Your task to perform on an android device: Open Yahoo.com Image 0: 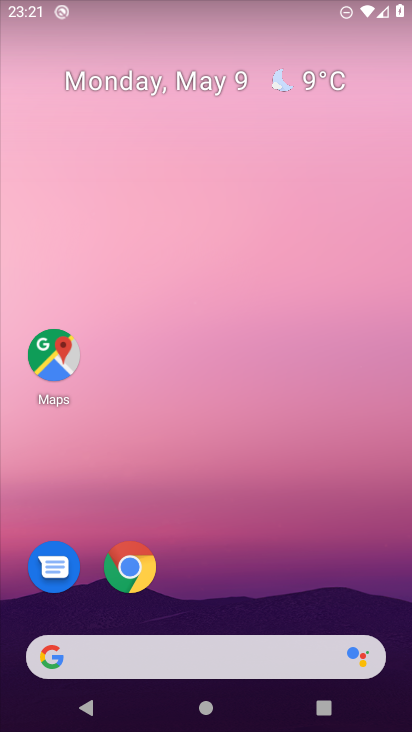
Step 0: drag from (224, 604) to (251, 115)
Your task to perform on an android device: Open Yahoo.com Image 1: 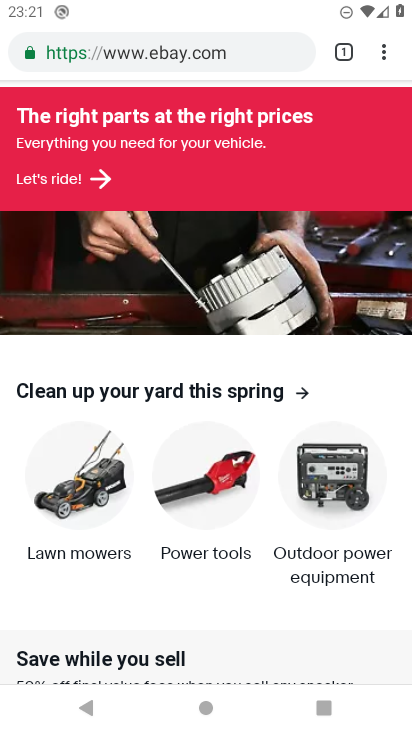
Step 1: press home button
Your task to perform on an android device: Open Yahoo.com Image 2: 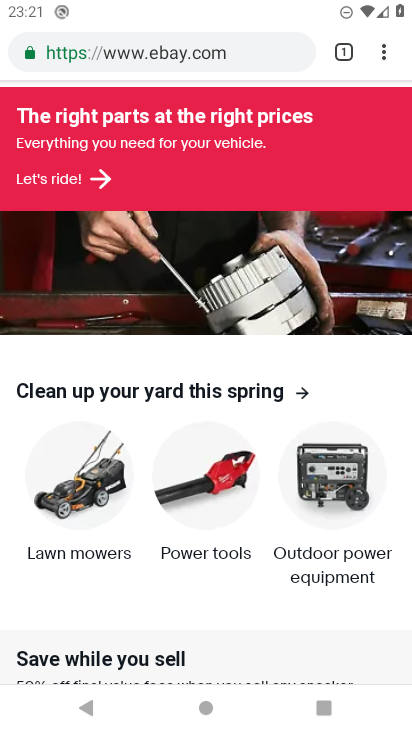
Step 2: press home button
Your task to perform on an android device: Open Yahoo.com Image 3: 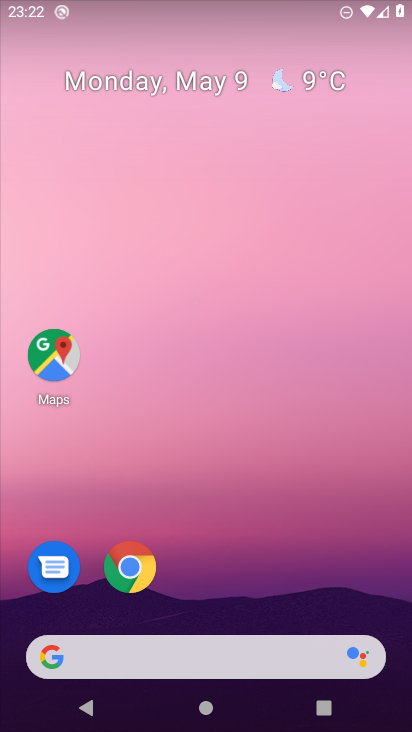
Step 3: click (130, 560)
Your task to perform on an android device: Open Yahoo.com Image 4: 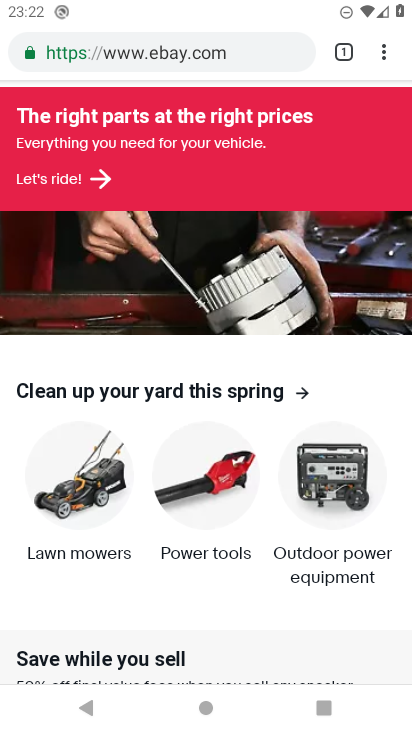
Step 4: click (346, 53)
Your task to perform on an android device: Open Yahoo.com Image 5: 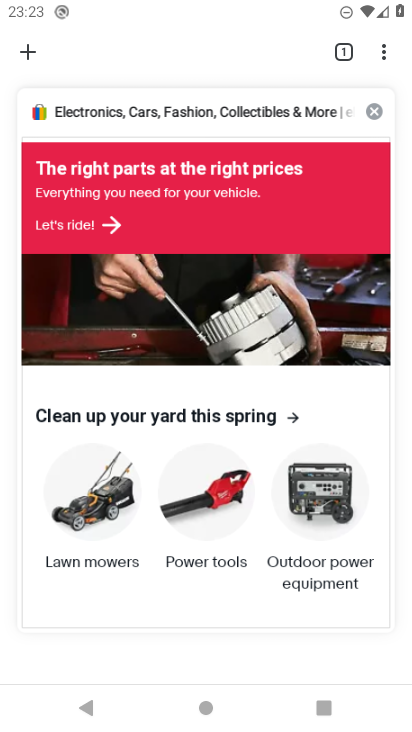
Step 5: click (369, 109)
Your task to perform on an android device: Open Yahoo.com Image 6: 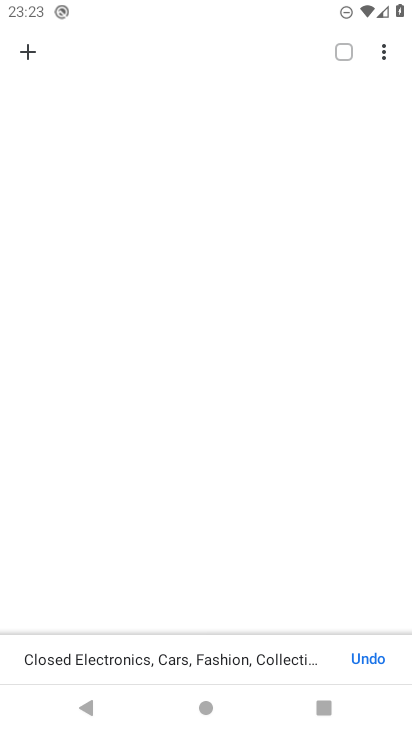
Step 6: click (35, 55)
Your task to perform on an android device: Open Yahoo.com Image 7: 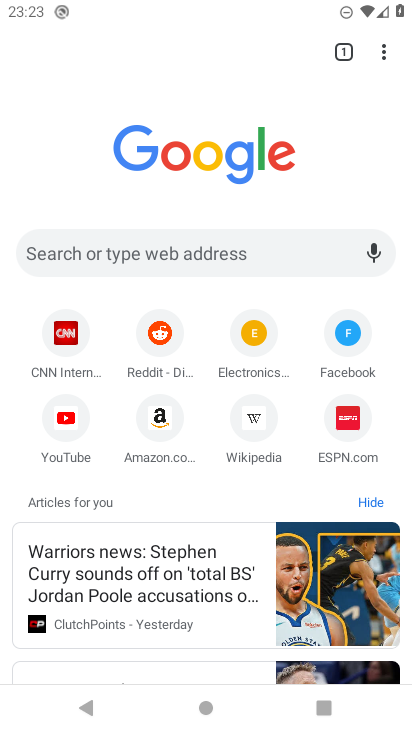
Step 7: click (132, 239)
Your task to perform on an android device: Open Yahoo.com Image 8: 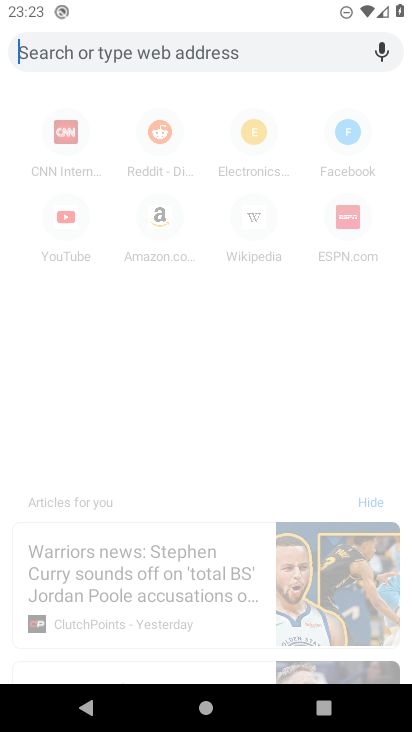
Step 8: type "yahoo.com"
Your task to perform on an android device: Open Yahoo.com Image 9: 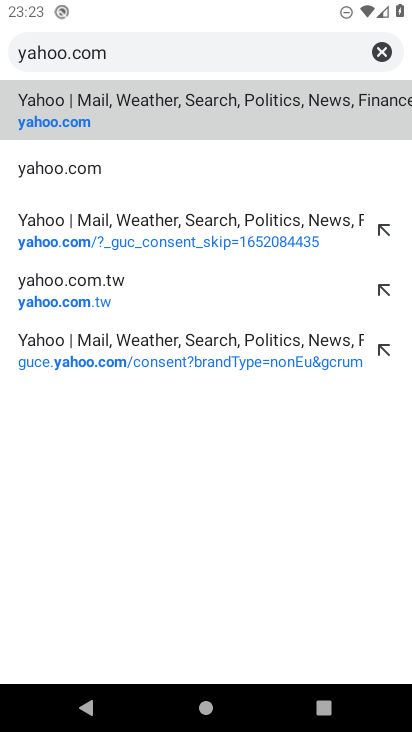
Step 9: click (108, 112)
Your task to perform on an android device: Open Yahoo.com Image 10: 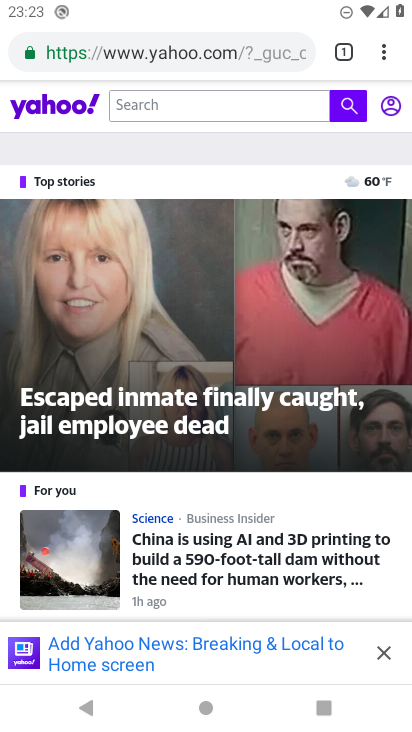
Step 10: click (383, 658)
Your task to perform on an android device: Open Yahoo.com Image 11: 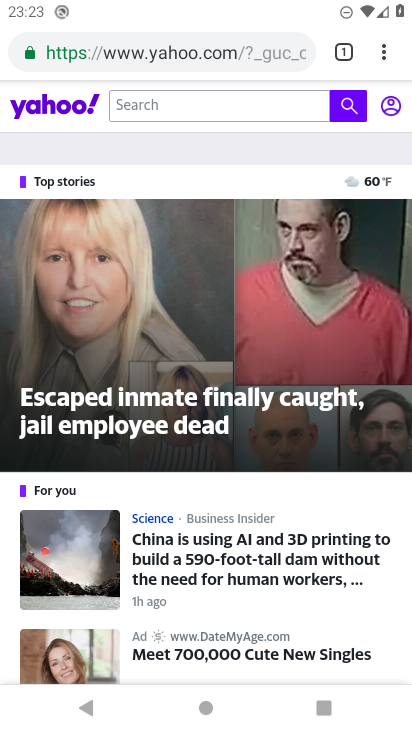
Step 11: task complete